Your task to perform on an android device: turn on translation in the chrome app Image 0: 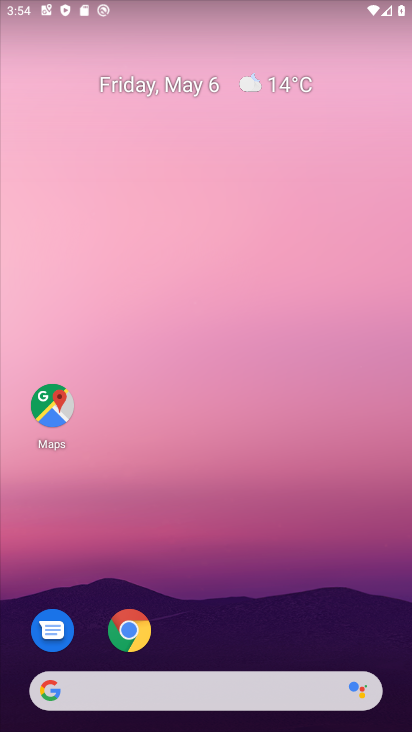
Step 0: click (132, 630)
Your task to perform on an android device: turn on translation in the chrome app Image 1: 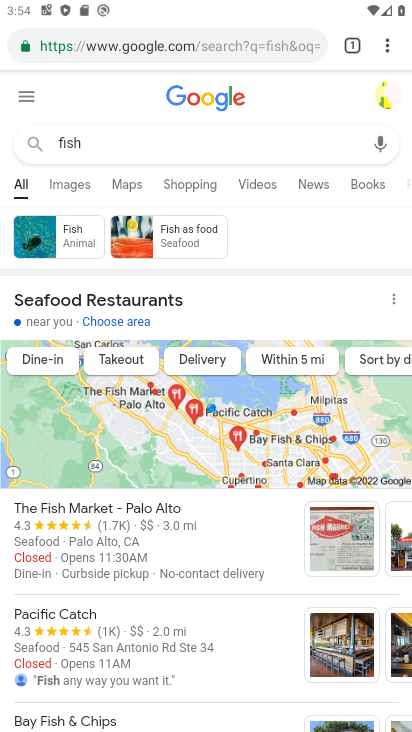
Step 1: click (398, 43)
Your task to perform on an android device: turn on translation in the chrome app Image 2: 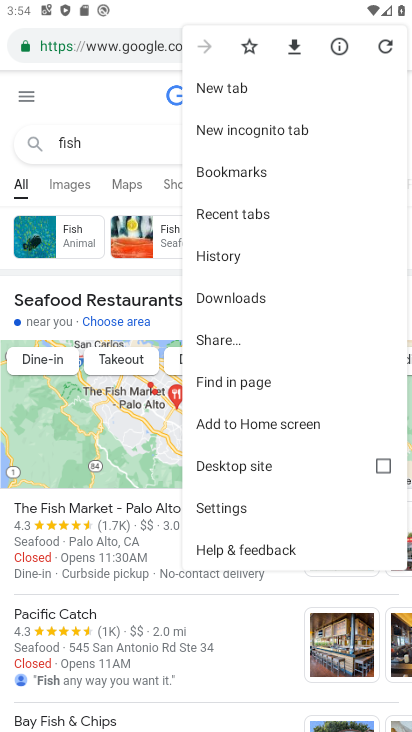
Step 2: click (254, 512)
Your task to perform on an android device: turn on translation in the chrome app Image 3: 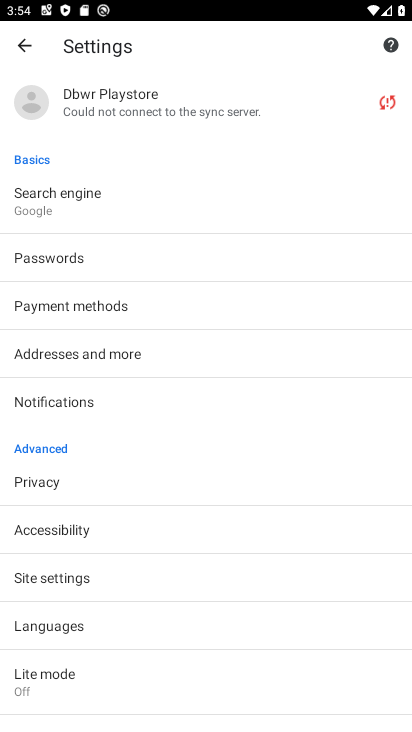
Step 3: drag from (146, 631) to (249, 354)
Your task to perform on an android device: turn on translation in the chrome app Image 4: 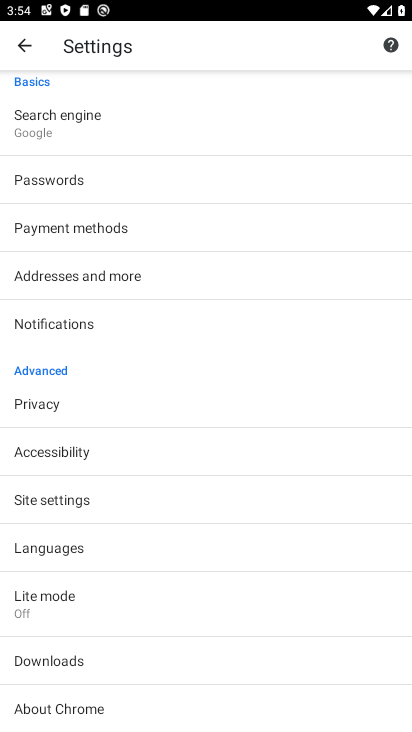
Step 4: click (191, 543)
Your task to perform on an android device: turn on translation in the chrome app Image 5: 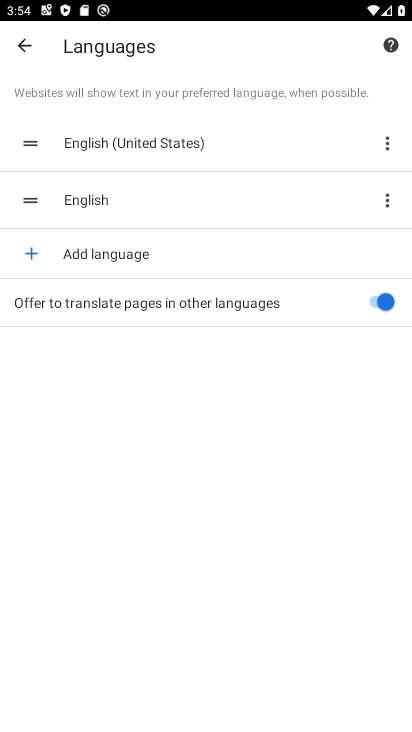
Step 5: task complete